Your task to perform on an android device: see tabs open on other devices in the chrome app Image 0: 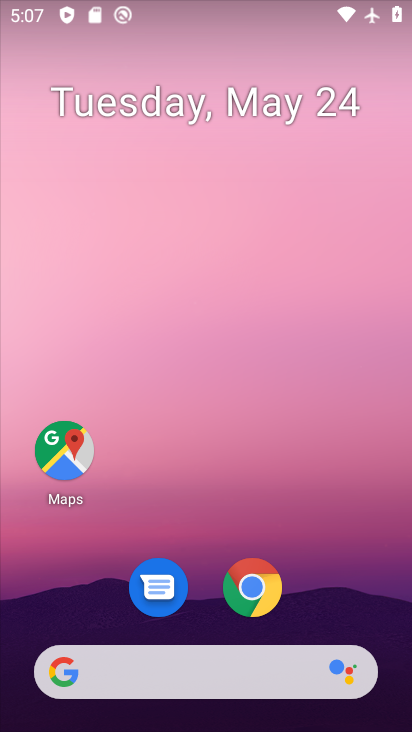
Step 0: click (266, 580)
Your task to perform on an android device: see tabs open on other devices in the chrome app Image 1: 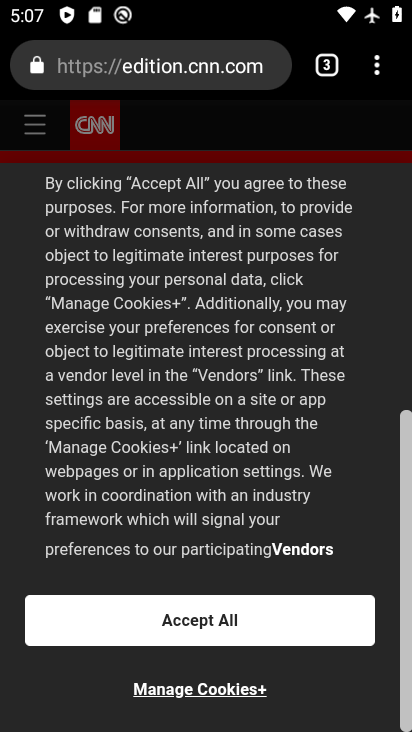
Step 1: click (389, 73)
Your task to perform on an android device: see tabs open on other devices in the chrome app Image 2: 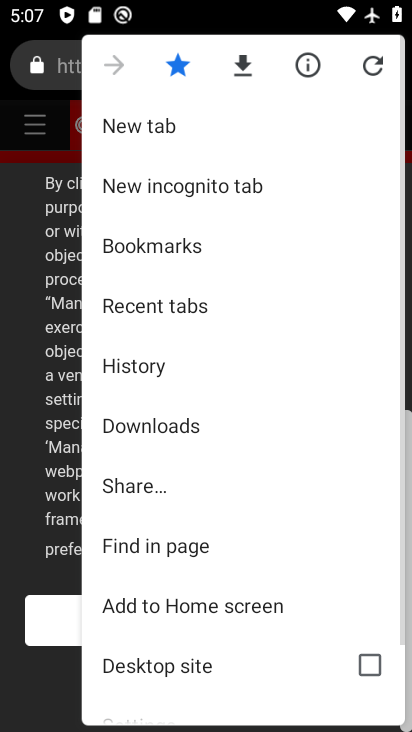
Step 2: click (213, 309)
Your task to perform on an android device: see tabs open on other devices in the chrome app Image 3: 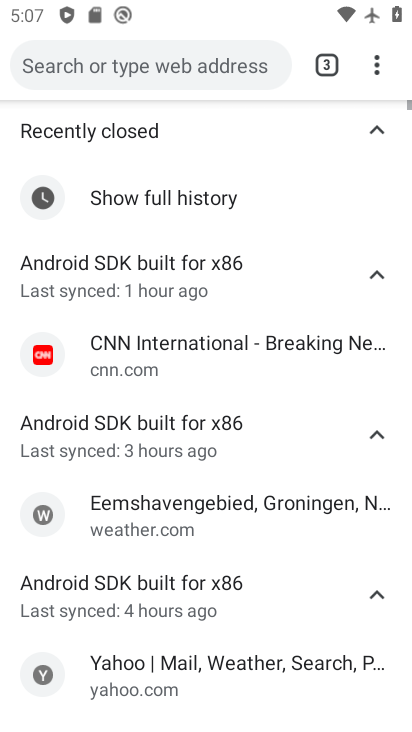
Step 3: task complete